Your task to perform on an android device: empty trash in google photos Image 0: 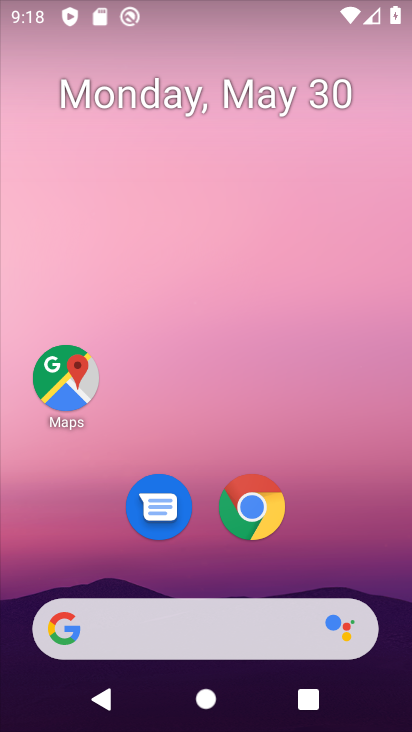
Step 0: drag from (252, 605) to (263, 270)
Your task to perform on an android device: empty trash in google photos Image 1: 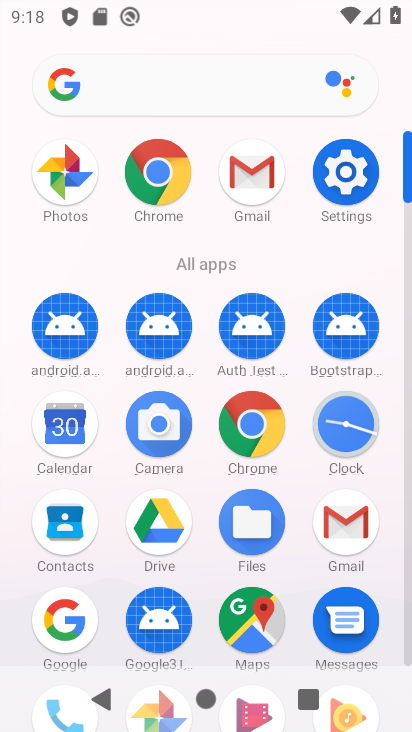
Step 1: click (159, 710)
Your task to perform on an android device: empty trash in google photos Image 2: 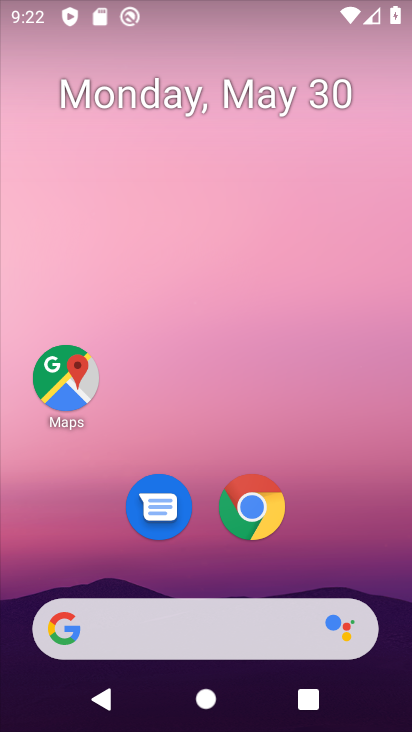
Step 2: drag from (258, 513) to (344, 201)
Your task to perform on an android device: empty trash in google photos Image 3: 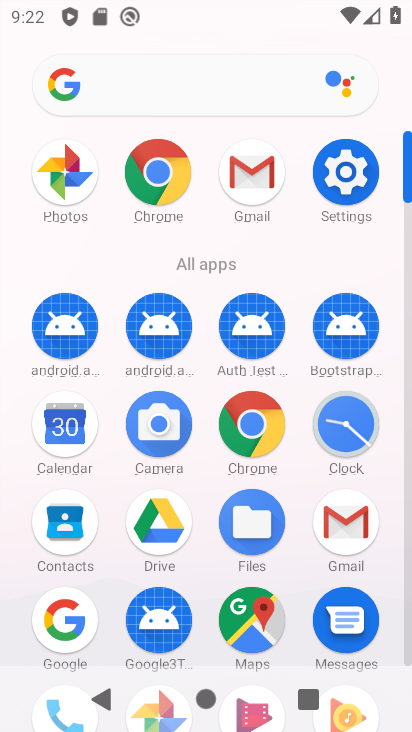
Step 3: click (68, 187)
Your task to perform on an android device: empty trash in google photos Image 4: 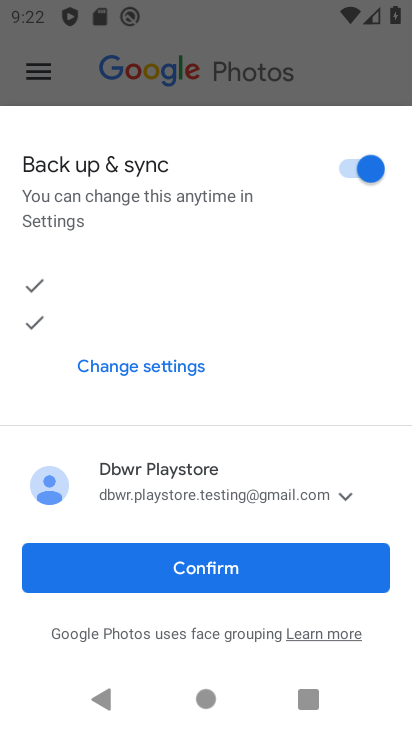
Step 4: click (36, 73)
Your task to perform on an android device: empty trash in google photos Image 5: 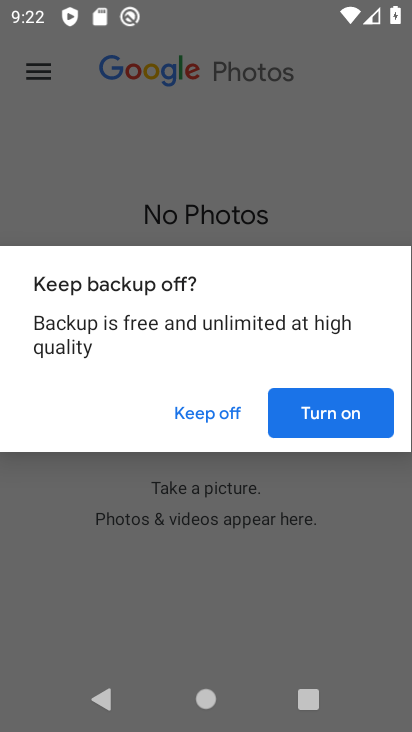
Step 5: click (198, 570)
Your task to perform on an android device: empty trash in google photos Image 6: 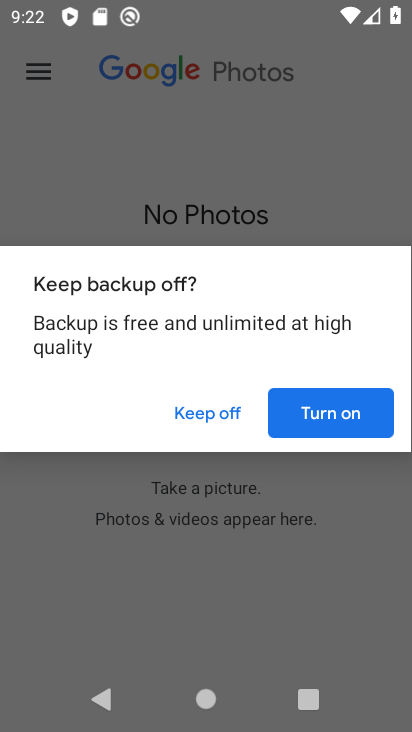
Step 6: click (311, 417)
Your task to perform on an android device: empty trash in google photos Image 7: 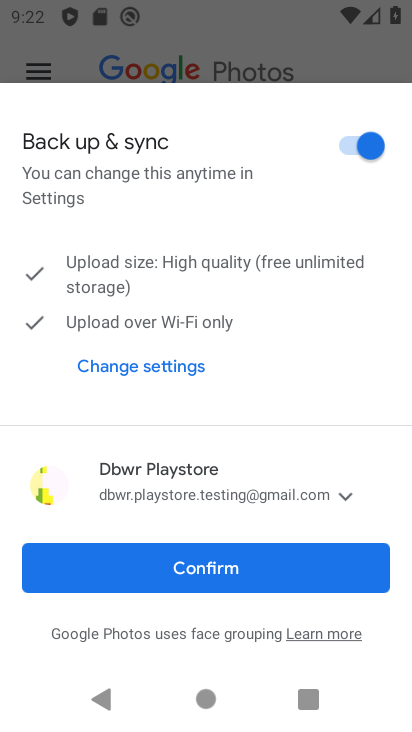
Step 7: click (180, 557)
Your task to perform on an android device: empty trash in google photos Image 8: 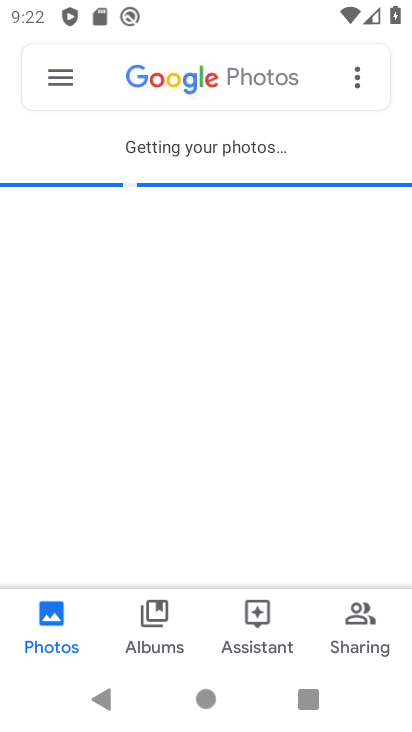
Step 8: click (45, 67)
Your task to perform on an android device: empty trash in google photos Image 9: 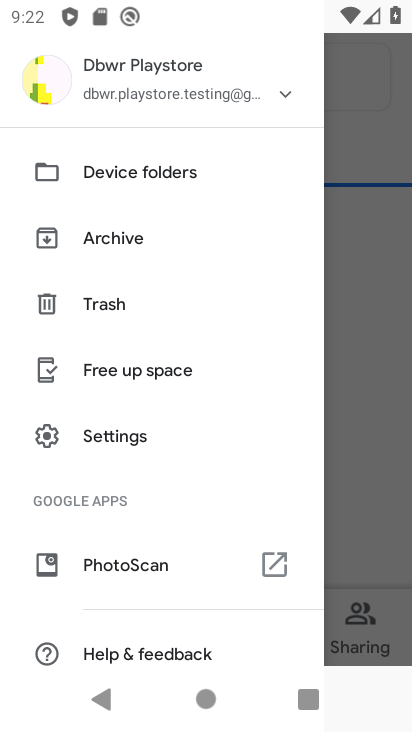
Step 9: click (117, 307)
Your task to perform on an android device: empty trash in google photos Image 10: 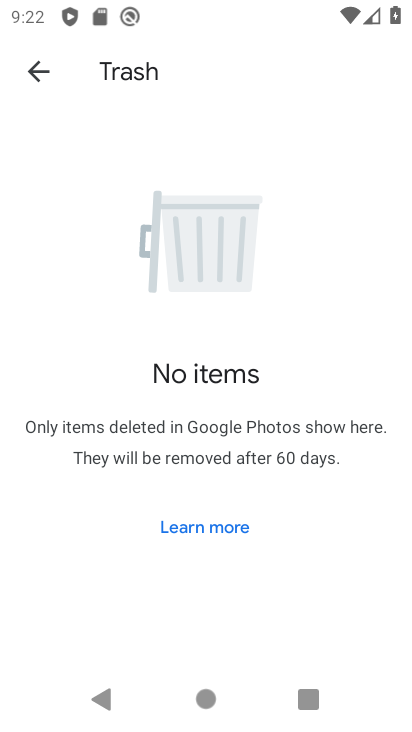
Step 10: task complete